Your task to perform on an android device: Show me popular games on the Play Store Image 0: 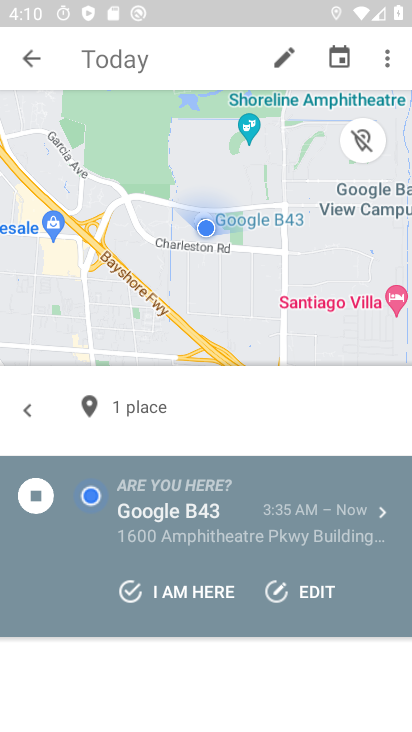
Step 0: press home button
Your task to perform on an android device: Show me popular games on the Play Store Image 1: 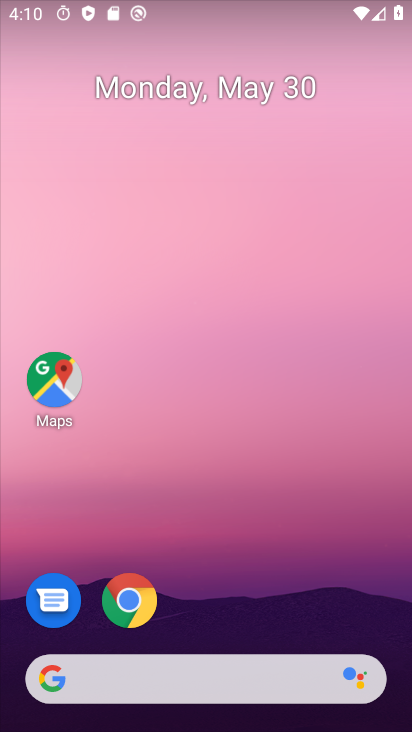
Step 1: click (207, 245)
Your task to perform on an android device: Show me popular games on the Play Store Image 2: 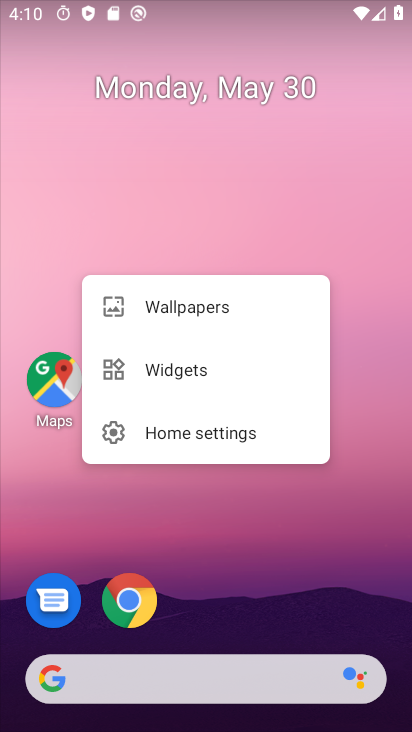
Step 2: drag from (378, 617) to (351, 225)
Your task to perform on an android device: Show me popular games on the Play Store Image 3: 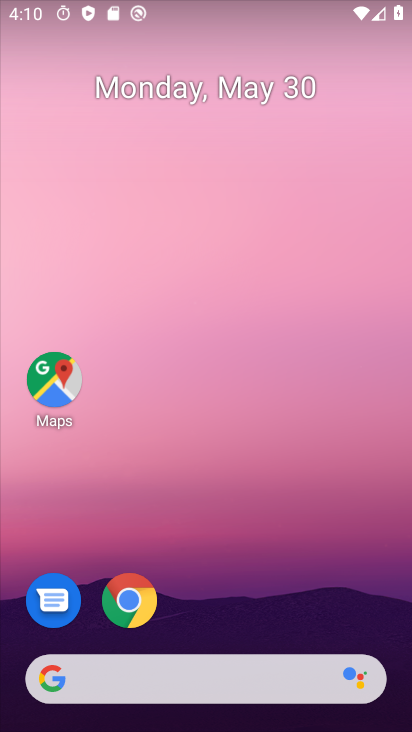
Step 3: drag from (241, 605) to (194, 165)
Your task to perform on an android device: Show me popular games on the Play Store Image 4: 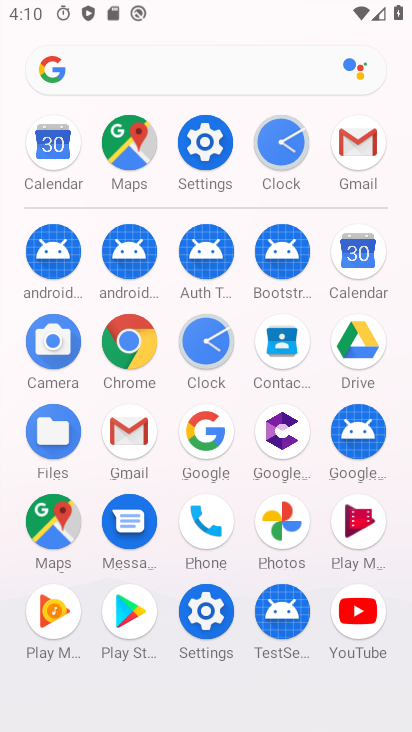
Step 4: click (123, 627)
Your task to perform on an android device: Show me popular games on the Play Store Image 5: 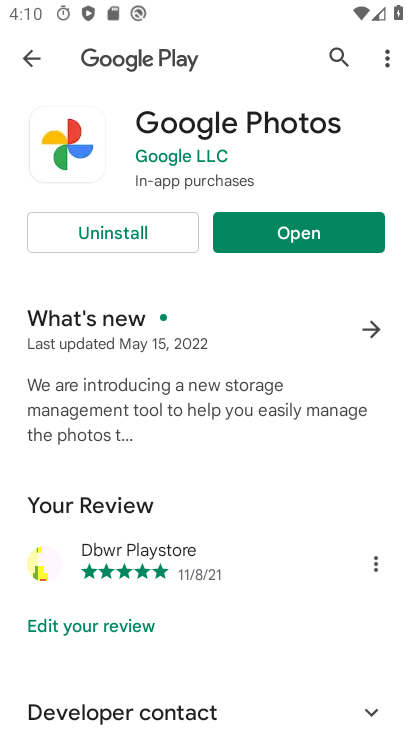
Step 5: click (32, 62)
Your task to perform on an android device: Show me popular games on the Play Store Image 6: 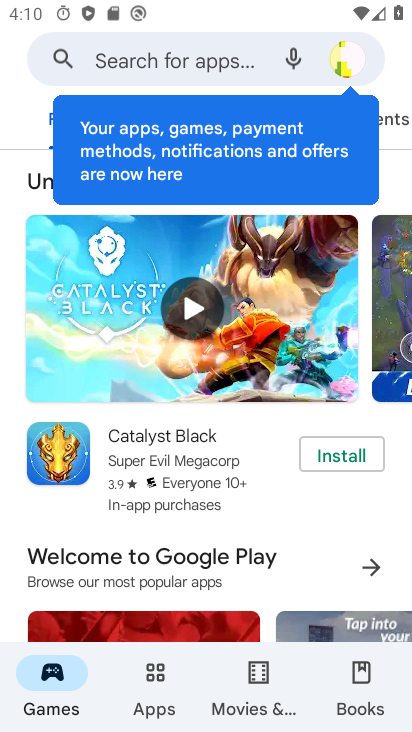
Step 6: drag from (259, 461) to (244, 285)
Your task to perform on an android device: Show me popular games on the Play Store Image 7: 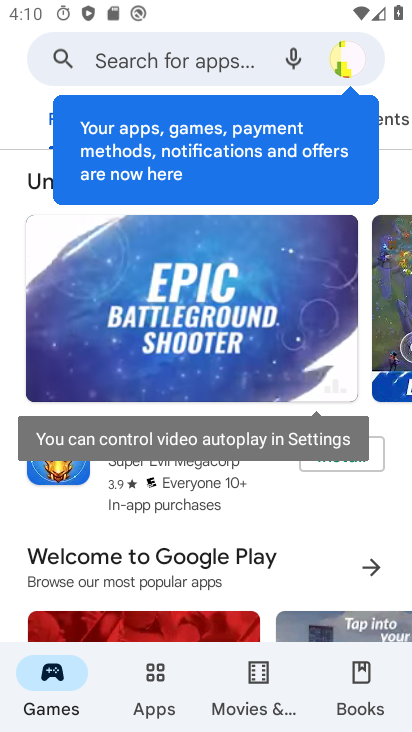
Step 7: drag from (253, 557) to (248, 104)
Your task to perform on an android device: Show me popular games on the Play Store Image 8: 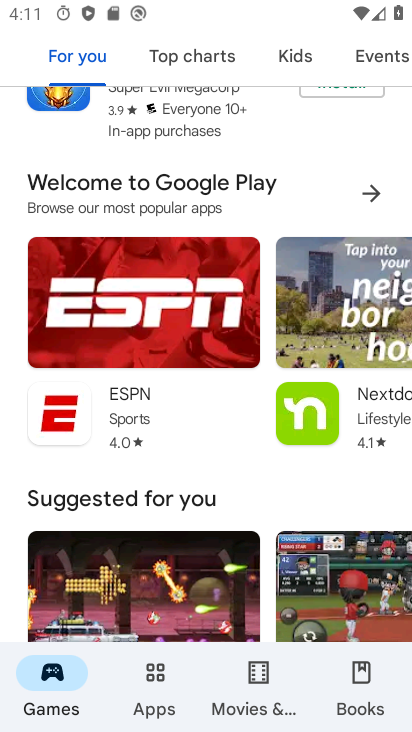
Step 8: drag from (251, 477) to (229, 140)
Your task to perform on an android device: Show me popular games on the Play Store Image 9: 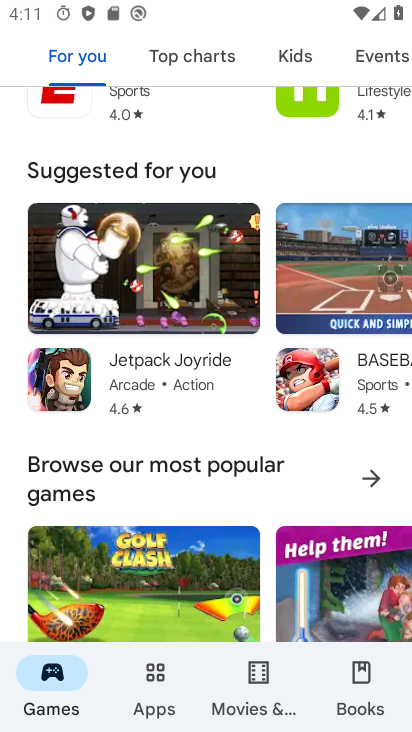
Step 9: click (214, 463)
Your task to perform on an android device: Show me popular games on the Play Store Image 10: 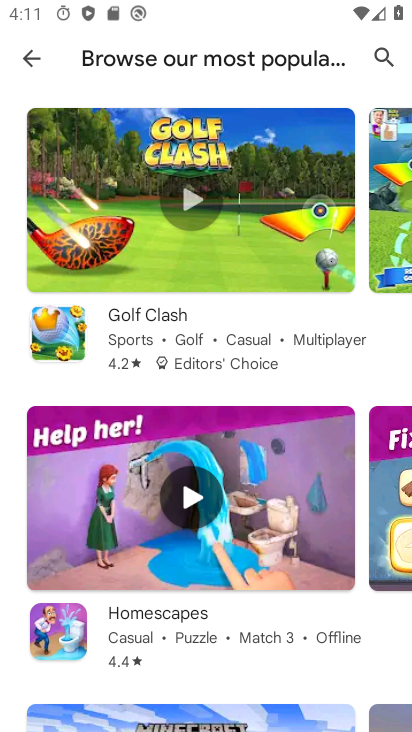
Step 10: task complete